Your task to perform on an android device: Open Google Chrome and click the shortcut for Amazon.com Image 0: 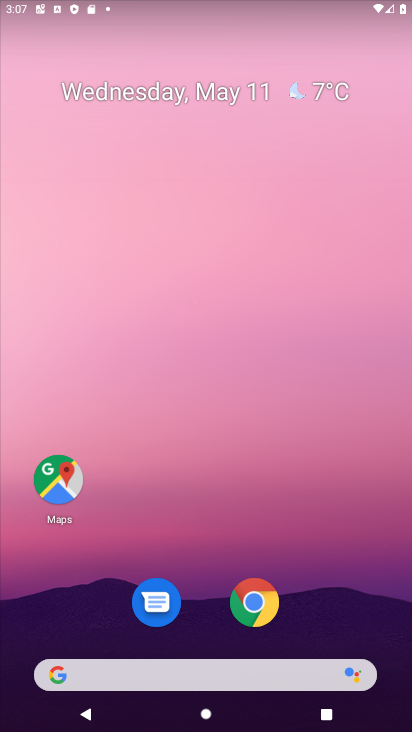
Step 0: click (274, 600)
Your task to perform on an android device: Open Google Chrome and click the shortcut for Amazon.com Image 1: 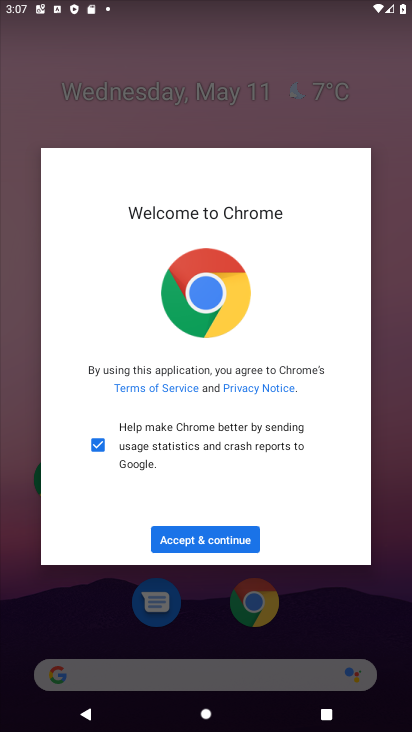
Step 1: click (246, 541)
Your task to perform on an android device: Open Google Chrome and click the shortcut for Amazon.com Image 2: 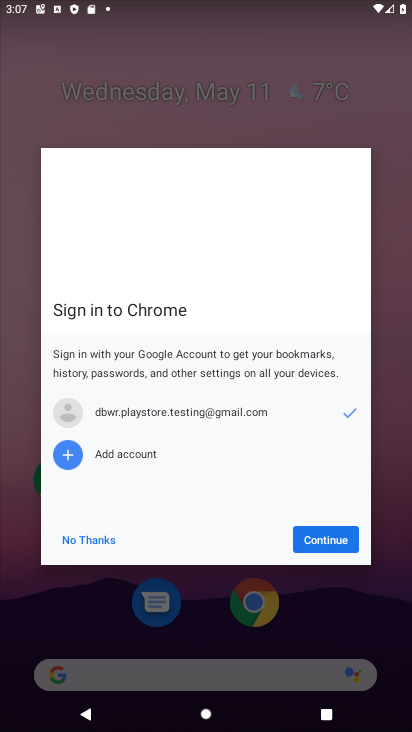
Step 2: click (310, 547)
Your task to perform on an android device: Open Google Chrome and click the shortcut for Amazon.com Image 3: 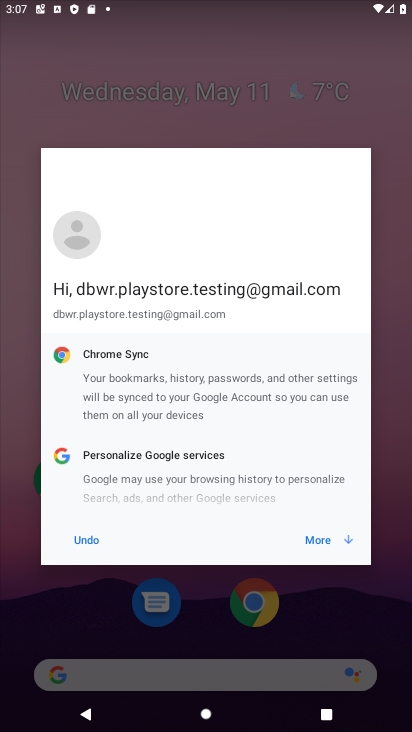
Step 3: click (312, 546)
Your task to perform on an android device: Open Google Chrome and click the shortcut for Amazon.com Image 4: 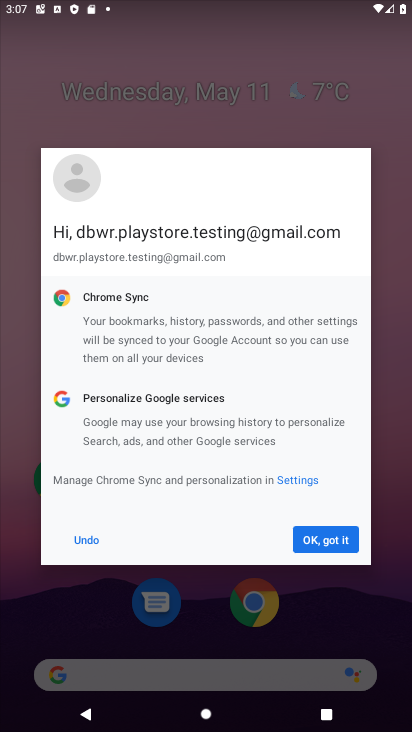
Step 4: click (312, 546)
Your task to perform on an android device: Open Google Chrome and click the shortcut for Amazon.com Image 5: 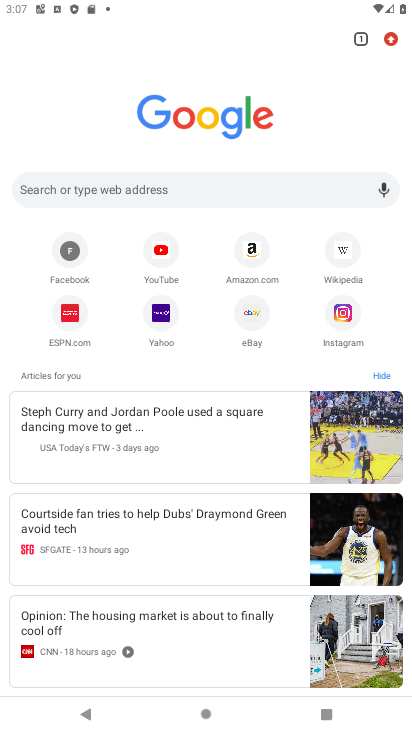
Step 5: click (243, 243)
Your task to perform on an android device: Open Google Chrome and click the shortcut for Amazon.com Image 6: 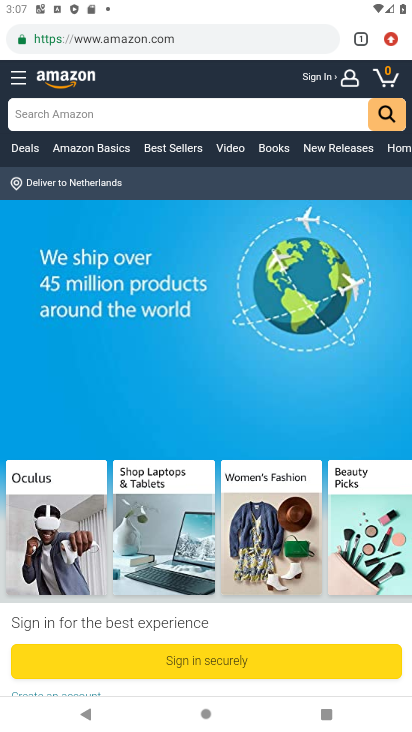
Step 6: task complete